Your task to perform on an android device: delete a single message in the gmail app Image 0: 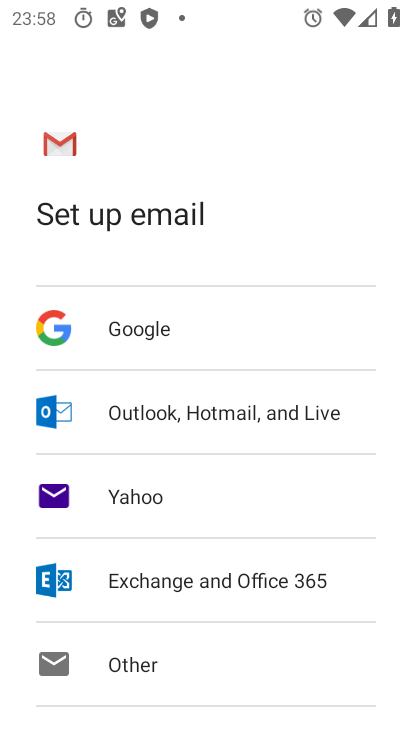
Step 0: press home button
Your task to perform on an android device: delete a single message in the gmail app Image 1: 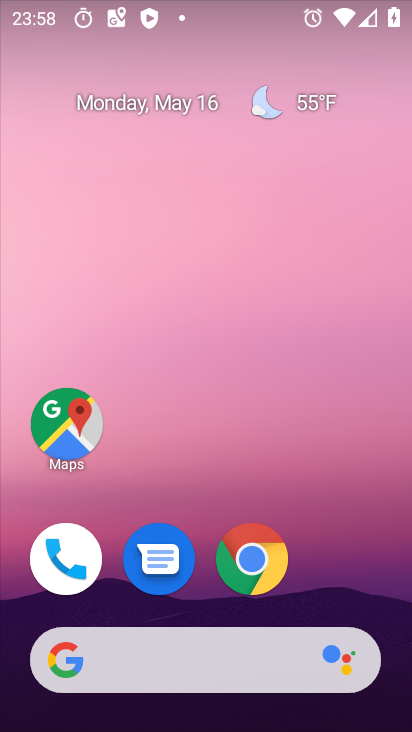
Step 1: drag from (372, 520) to (294, 13)
Your task to perform on an android device: delete a single message in the gmail app Image 2: 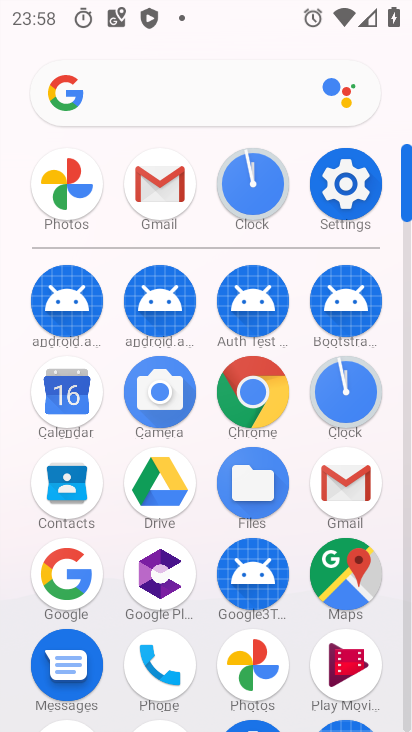
Step 2: click (178, 192)
Your task to perform on an android device: delete a single message in the gmail app Image 3: 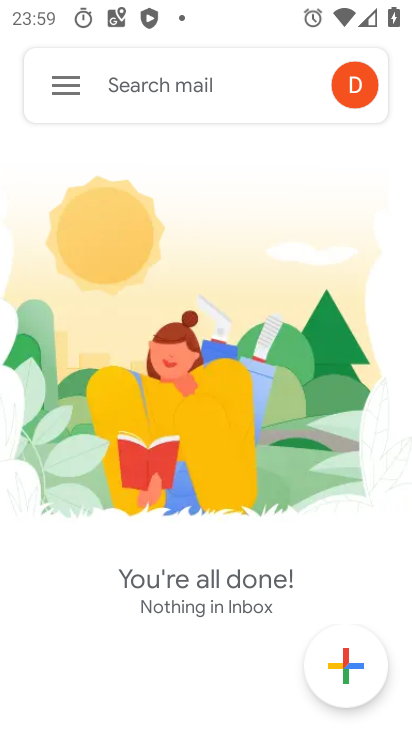
Step 3: click (60, 96)
Your task to perform on an android device: delete a single message in the gmail app Image 4: 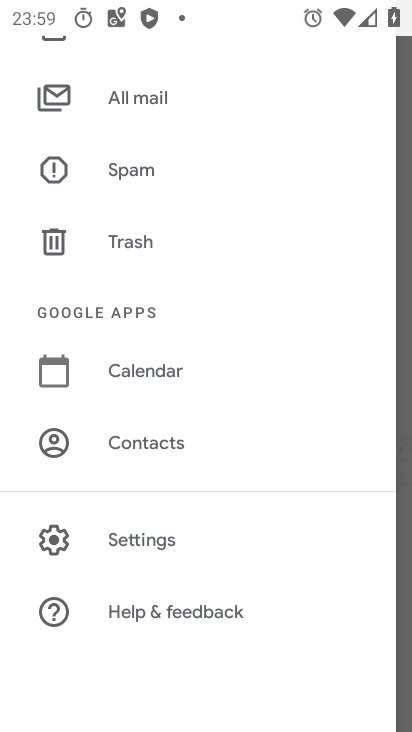
Step 4: click (125, 103)
Your task to perform on an android device: delete a single message in the gmail app Image 5: 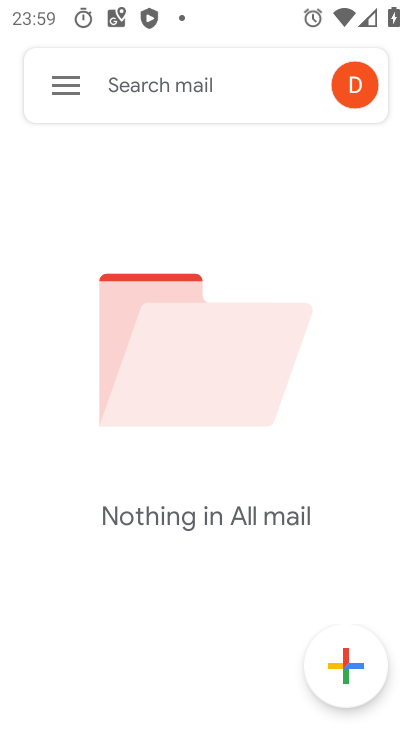
Step 5: task complete